Your task to perform on an android device: Open Chrome and go to settings Image 0: 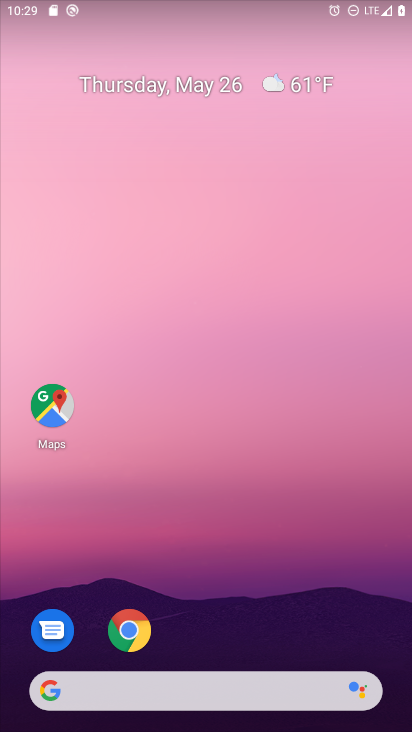
Step 0: drag from (203, 644) to (192, 256)
Your task to perform on an android device: Open Chrome and go to settings Image 1: 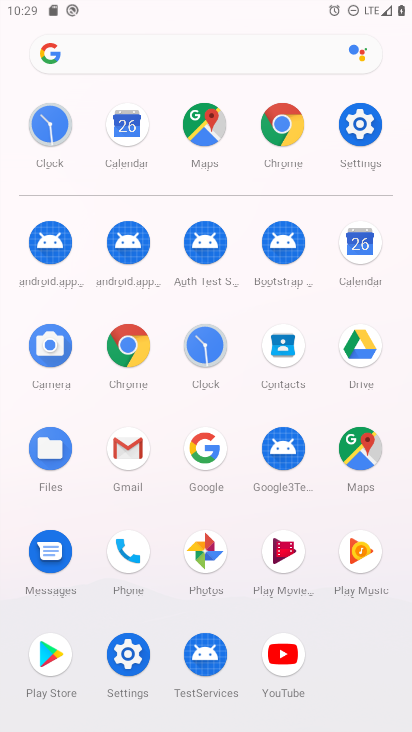
Step 1: click (134, 345)
Your task to perform on an android device: Open Chrome and go to settings Image 2: 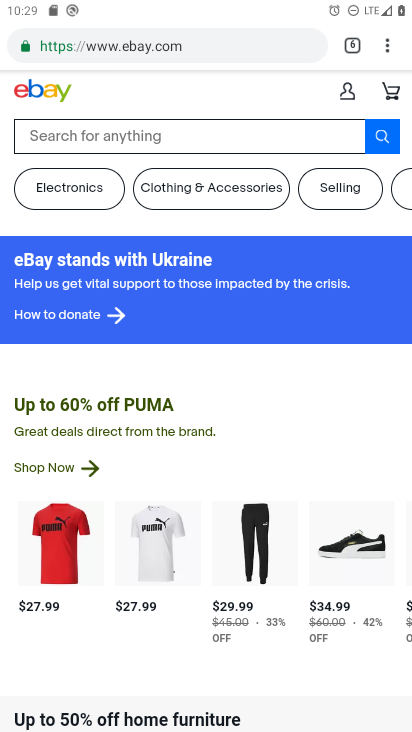
Step 2: click (385, 41)
Your task to perform on an android device: Open Chrome and go to settings Image 3: 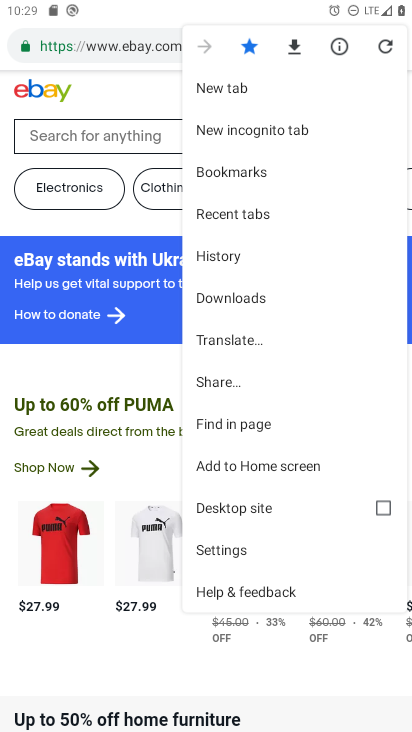
Step 3: click (213, 537)
Your task to perform on an android device: Open Chrome and go to settings Image 4: 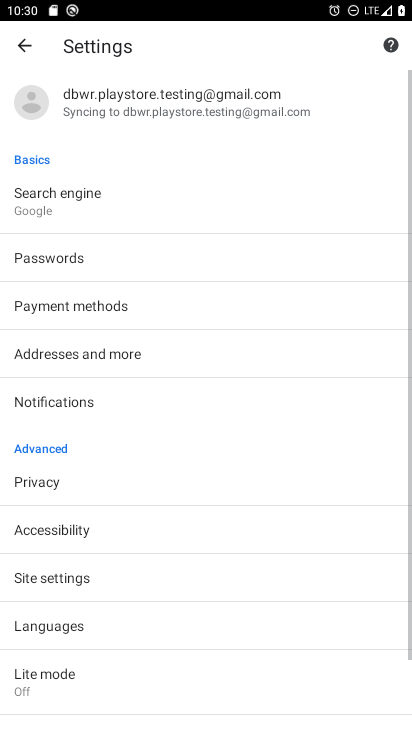
Step 4: task complete